Your task to perform on an android device: turn off javascript in the chrome app Image 0: 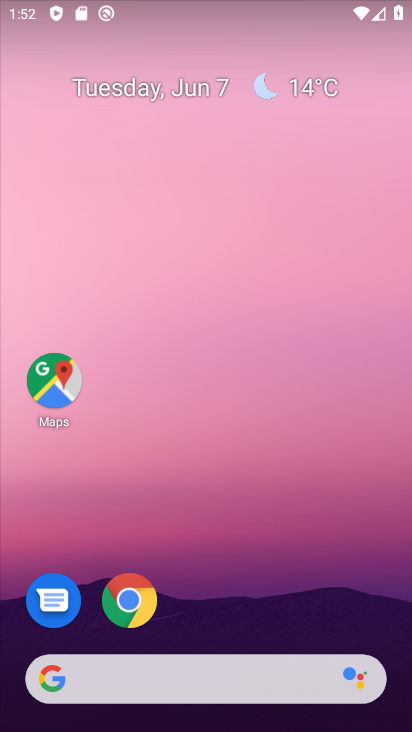
Step 0: click (148, 608)
Your task to perform on an android device: turn off javascript in the chrome app Image 1: 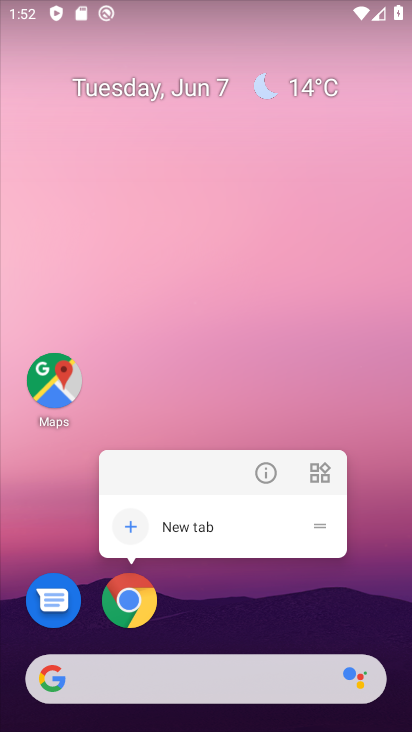
Step 1: click (135, 604)
Your task to perform on an android device: turn off javascript in the chrome app Image 2: 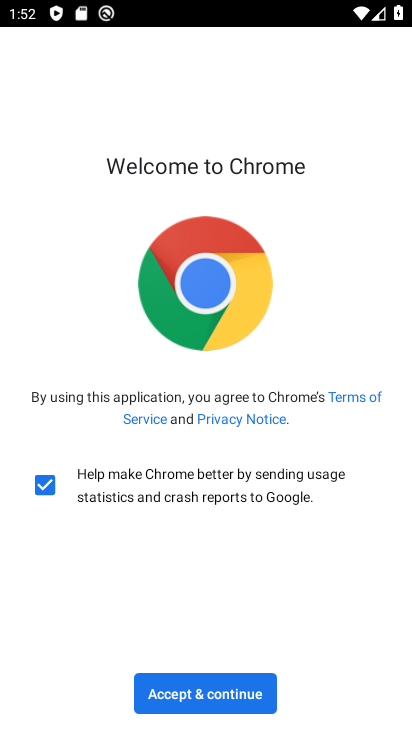
Step 2: click (192, 684)
Your task to perform on an android device: turn off javascript in the chrome app Image 3: 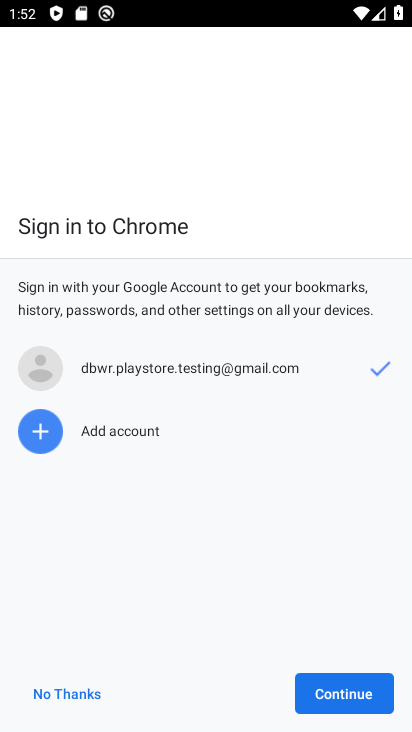
Step 3: click (298, 697)
Your task to perform on an android device: turn off javascript in the chrome app Image 4: 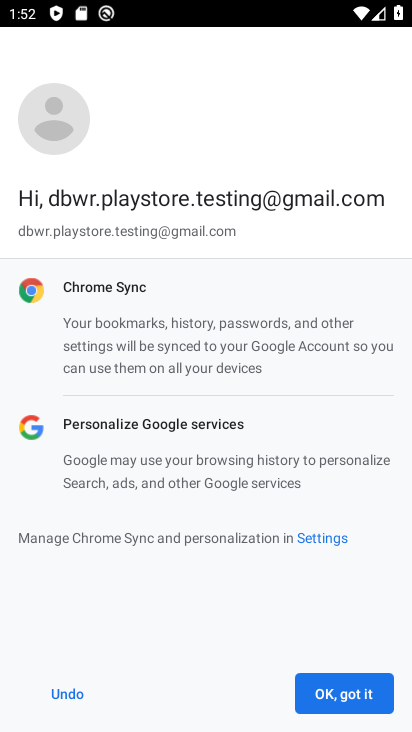
Step 4: click (310, 696)
Your task to perform on an android device: turn off javascript in the chrome app Image 5: 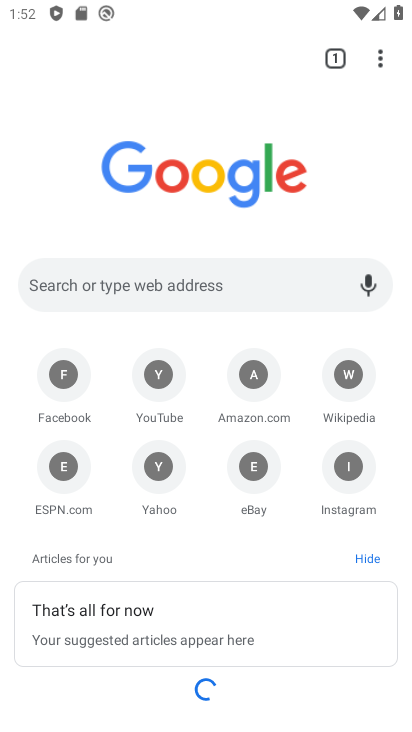
Step 5: click (377, 63)
Your task to perform on an android device: turn off javascript in the chrome app Image 6: 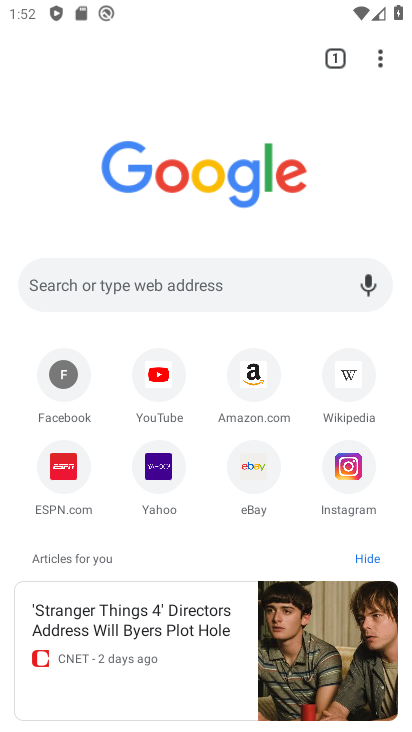
Step 6: click (380, 55)
Your task to perform on an android device: turn off javascript in the chrome app Image 7: 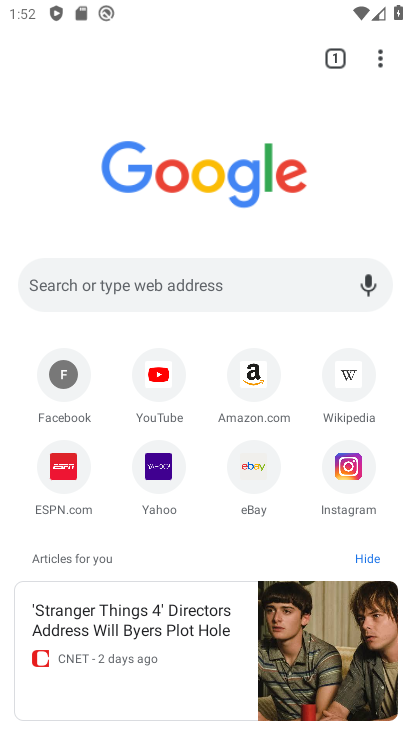
Step 7: click (380, 60)
Your task to perform on an android device: turn off javascript in the chrome app Image 8: 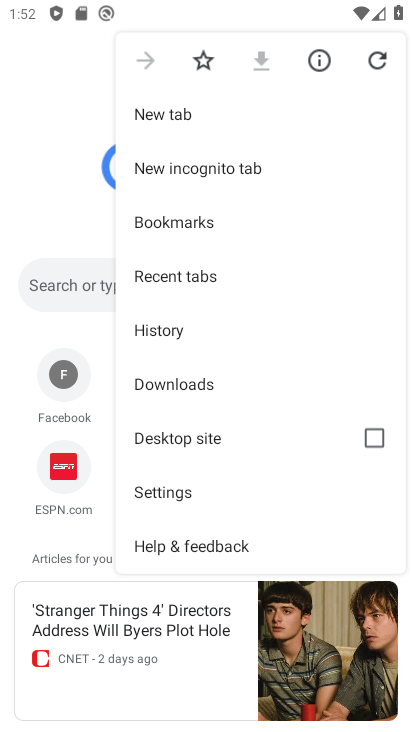
Step 8: click (198, 494)
Your task to perform on an android device: turn off javascript in the chrome app Image 9: 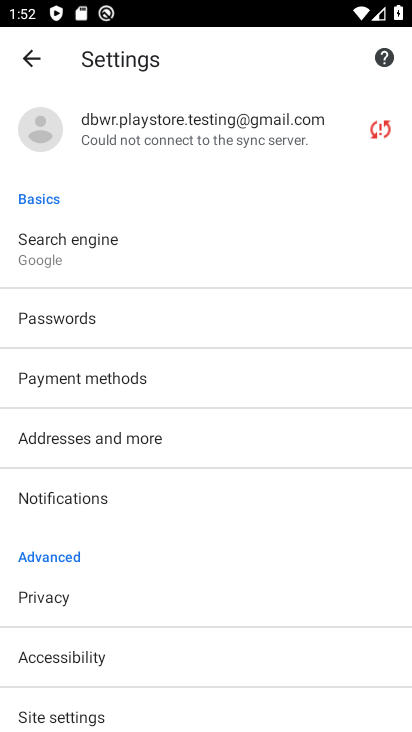
Step 9: click (81, 275)
Your task to perform on an android device: turn off javascript in the chrome app Image 10: 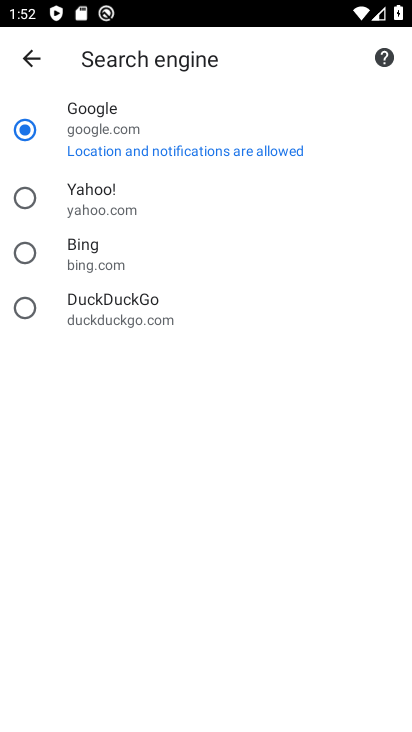
Step 10: press back button
Your task to perform on an android device: turn off javascript in the chrome app Image 11: 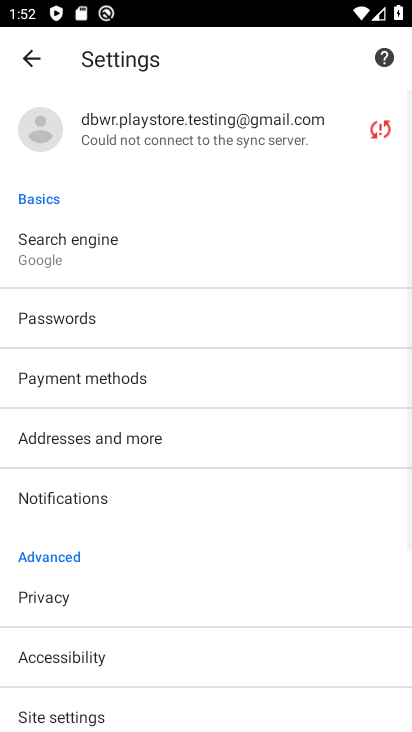
Step 11: click (87, 713)
Your task to perform on an android device: turn off javascript in the chrome app Image 12: 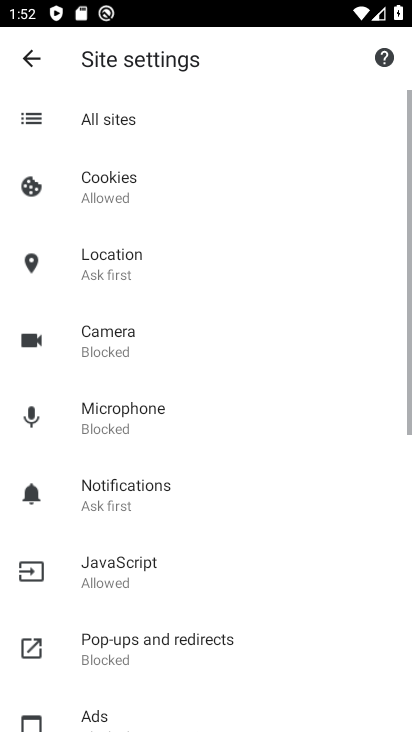
Step 12: drag from (86, 714) to (124, 371)
Your task to perform on an android device: turn off javascript in the chrome app Image 13: 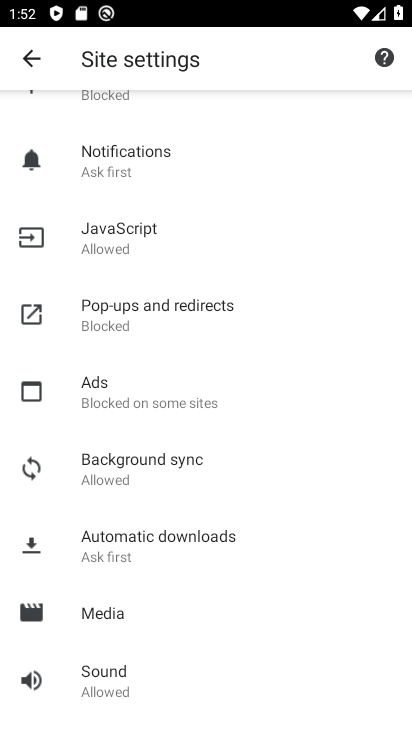
Step 13: click (127, 241)
Your task to perform on an android device: turn off javascript in the chrome app Image 14: 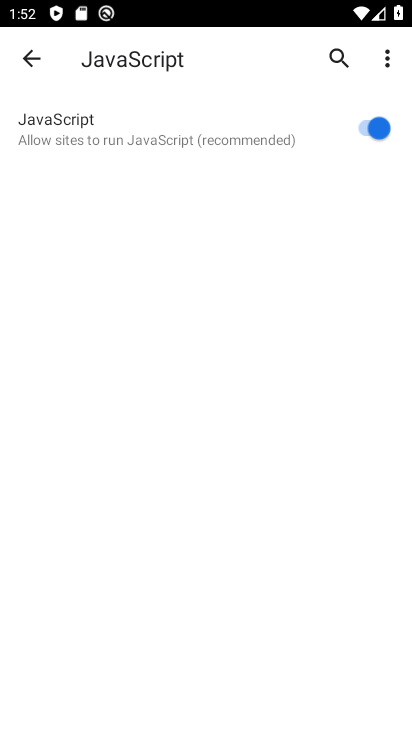
Step 14: click (364, 127)
Your task to perform on an android device: turn off javascript in the chrome app Image 15: 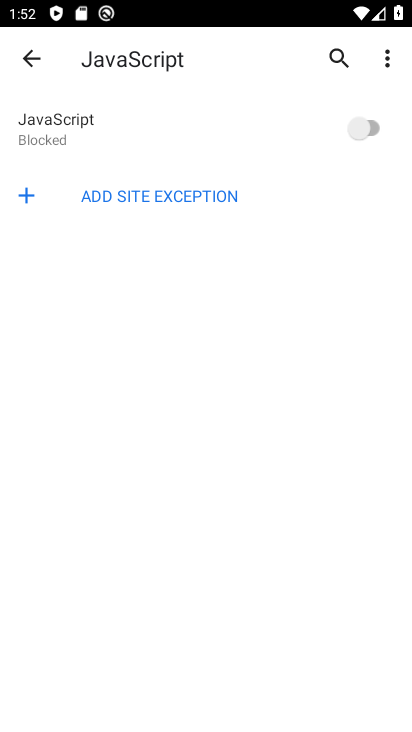
Step 15: task complete